Your task to perform on an android device: turn off data saver in the chrome app Image 0: 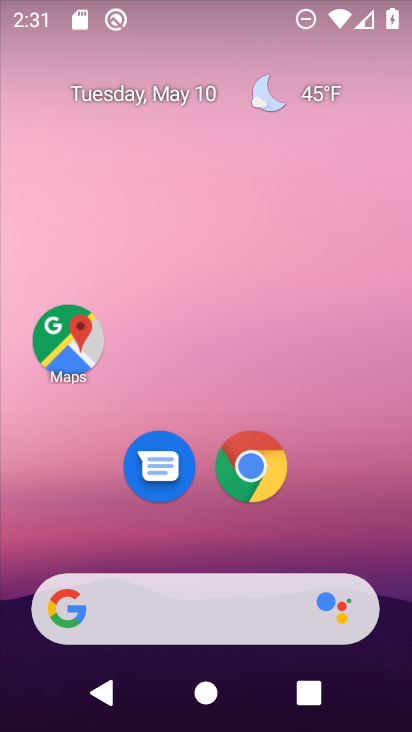
Step 0: click (259, 476)
Your task to perform on an android device: turn off data saver in the chrome app Image 1: 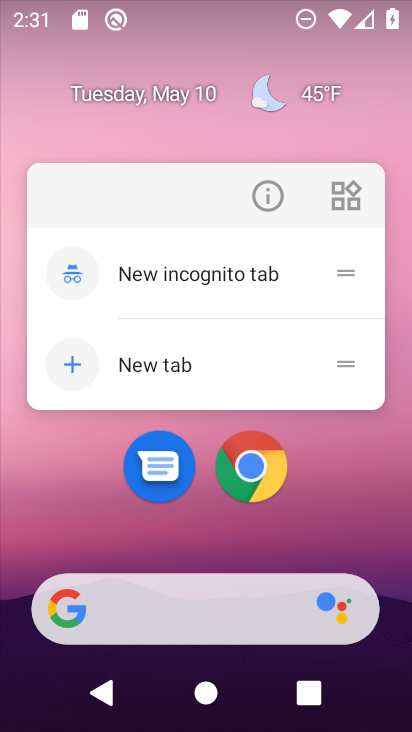
Step 1: click (240, 458)
Your task to perform on an android device: turn off data saver in the chrome app Image 2: 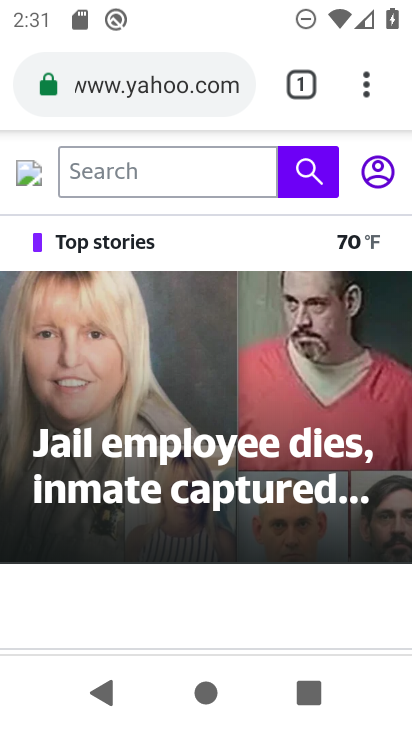
Step 2: click (365, 74)
Your task to perform on an android device: turn off data saver in the chrome app Image 3: 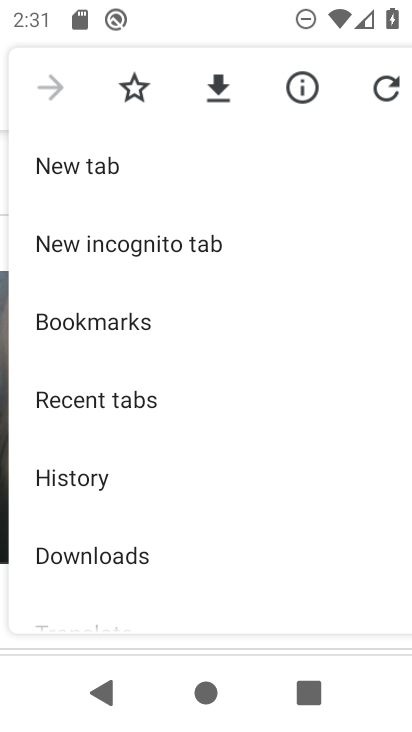
Step 3: drag from (215, 430) to (242, 331)
Your task to perform on an android device: turn off data saver in the chrome app Image 4: 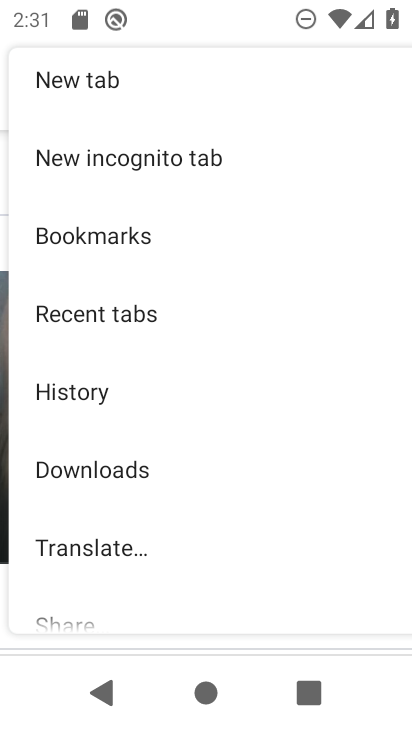
Step 4: drag from (165, 579) to (176, 375)
Your task to perform on an android device: turn off data saver in the chrome app Image 5: 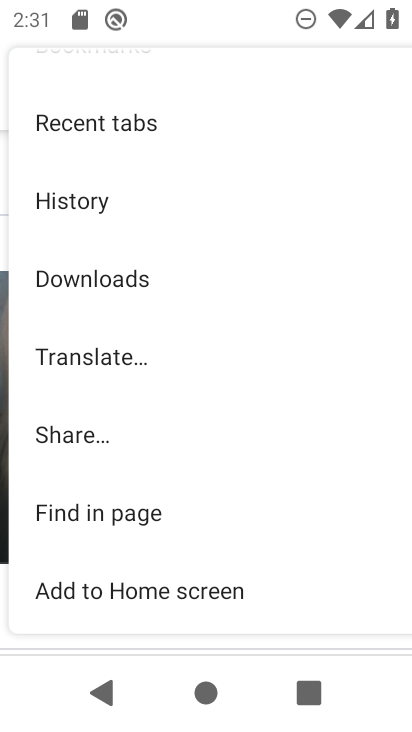
Step 5: drag from (172, 615) to (229, 379)
Your task to perform on an android device: turn off data saver in the chrome app Image 6: 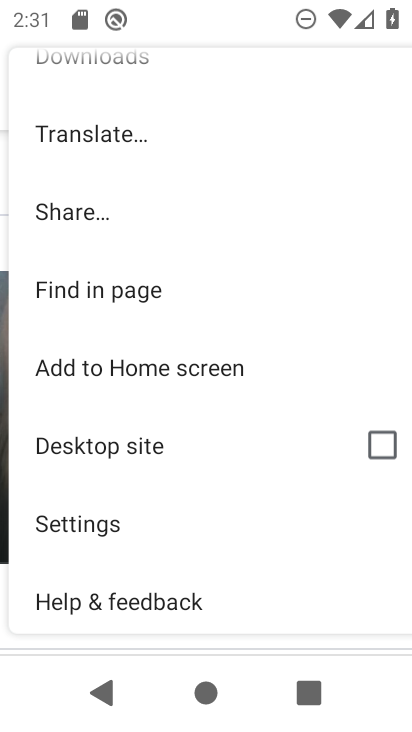
Step 6: click (202, 536)
Your task to perform on an android device: turn off data saver in the chrome app Image 7: 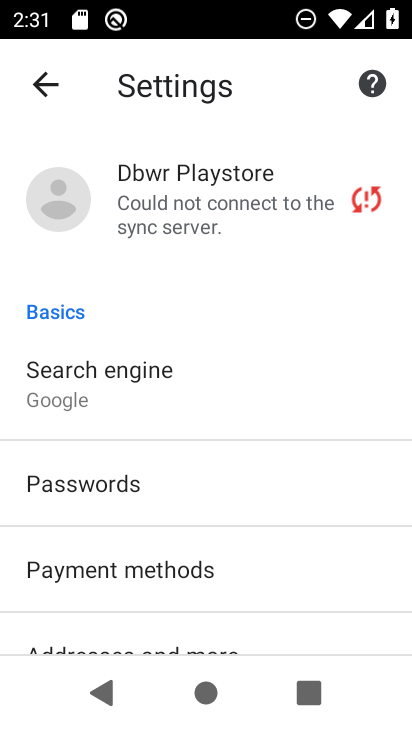
Step 7: drag from (235, 609) to (275, 155)
Your task to perform on an android device: turn off data saver in the chrome app Image 8: 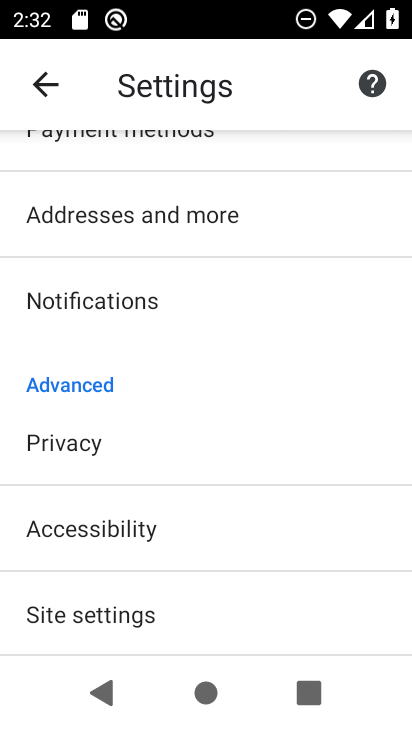
Step 8: drag from (166, 595) to (167, 298)
Your task to perform on an android device: turn off data saver in the chrome app Image 9: 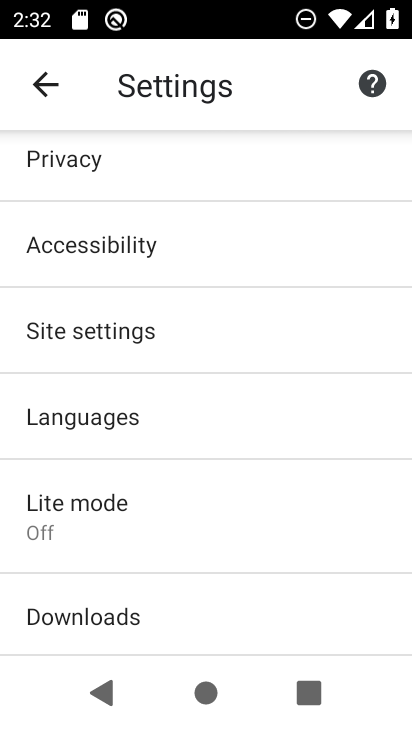
Step 9: click (94, 543)
Your task to perform on an android device: turn off data saver in the chrome app Image 10: 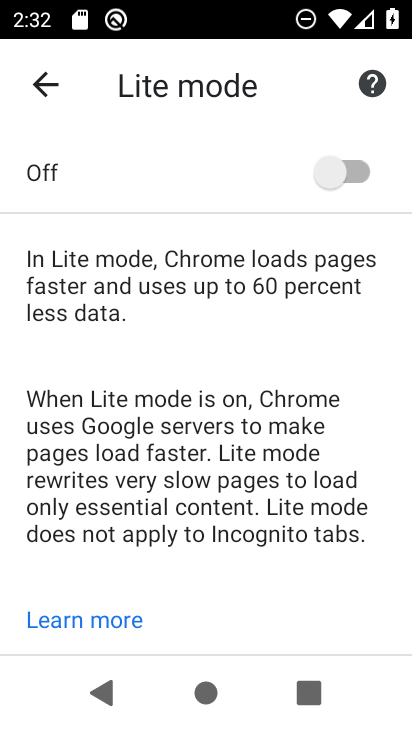
Step 10: task complete